Your task to perform on an android device: toggle javascript in the chrome app Image 0: 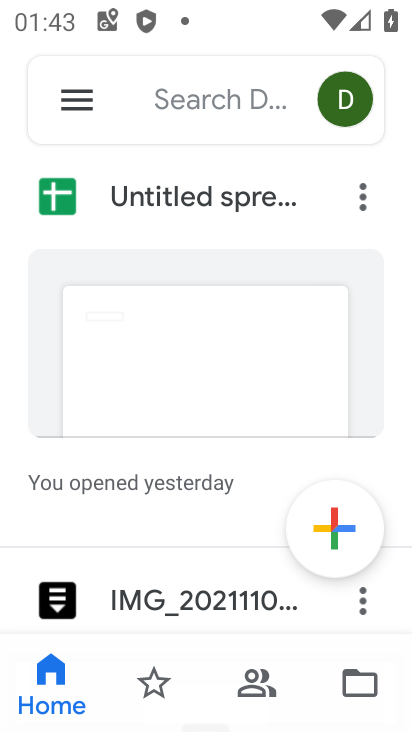
Step 0: press home button
Your task to perform on an android device: toggle javascript in the chrome app Image 1: 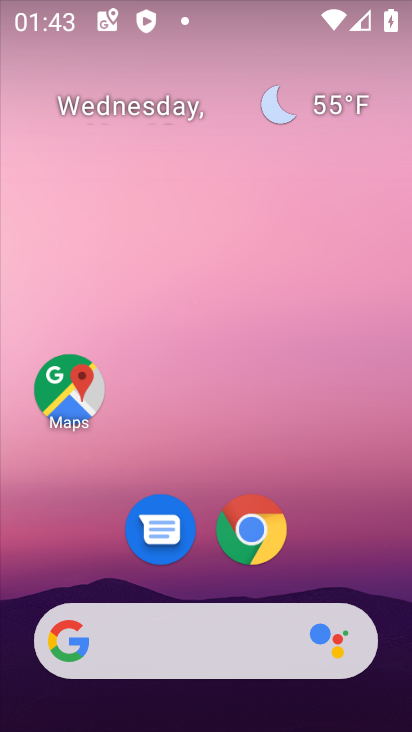
Step 1: click (251, 526)
Your task to perform on an android device: toggle javascript in the chrome app Image 2: 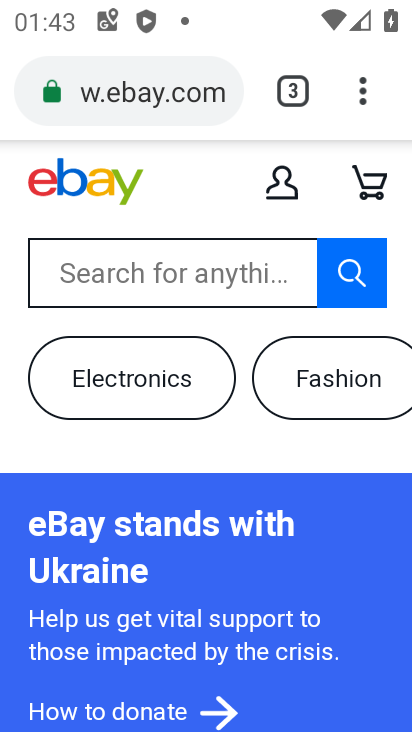
Step 2: click (366, 98)
Your task to perform on an android device: toggle javascript in the chrome app Image 3: 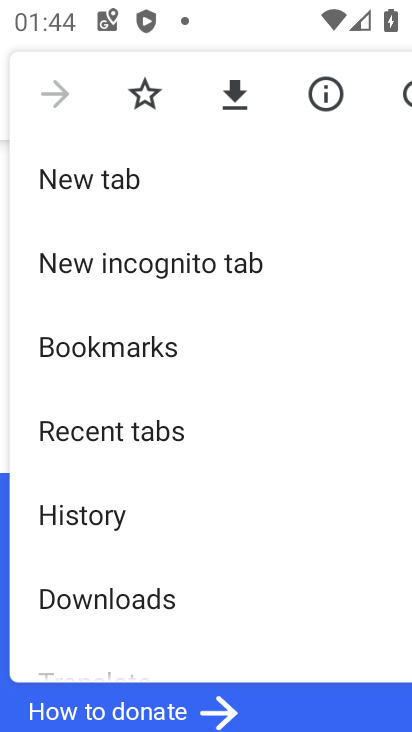
Step 3: drag from (121, 571) to (116, 231)
Your task to perform on an android device: toggle javascript in the chrome app Image 4: 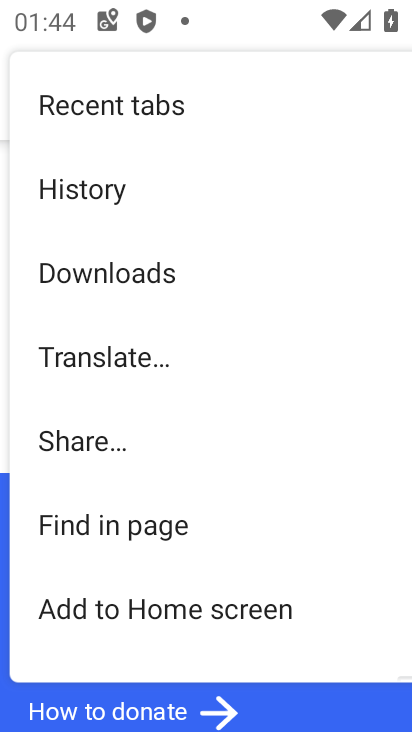
Step 4: drag from (91, 632) to (118, 291)
Your task to perform on an android device: toggle javascript in the chrome app Image 5: 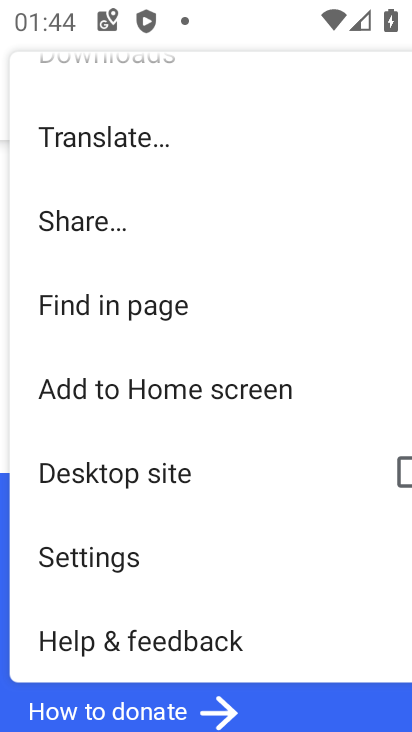
Step 5: click (109, 554)
Your task to perform on an android device: toggle javascript in the chrome app Image 6: 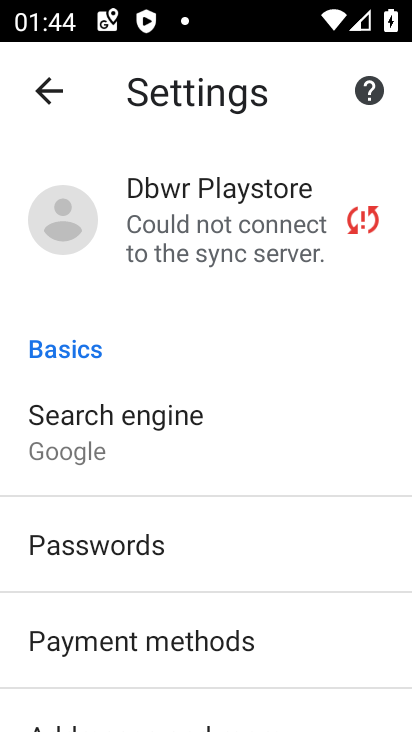
Step 6: drag from (142, 697) to (160, 318)
Your task to perform on an android device: toggle javascript in the chrome app Image 7: 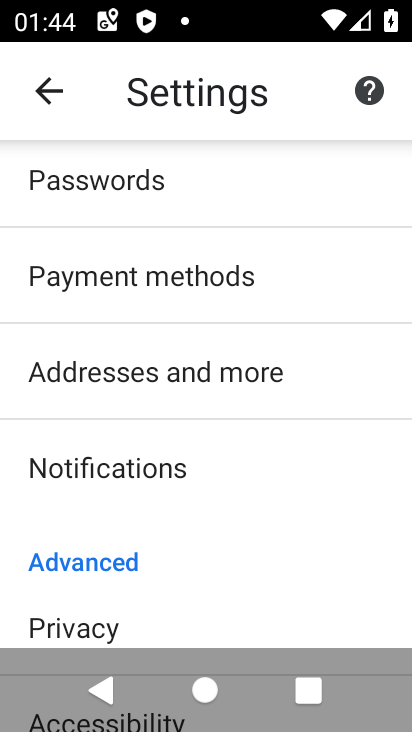
Step 7: drag from (151, 532) to (180, 255)
Your task to perform on an android device: toggle javascript in the chrome app Image 8: 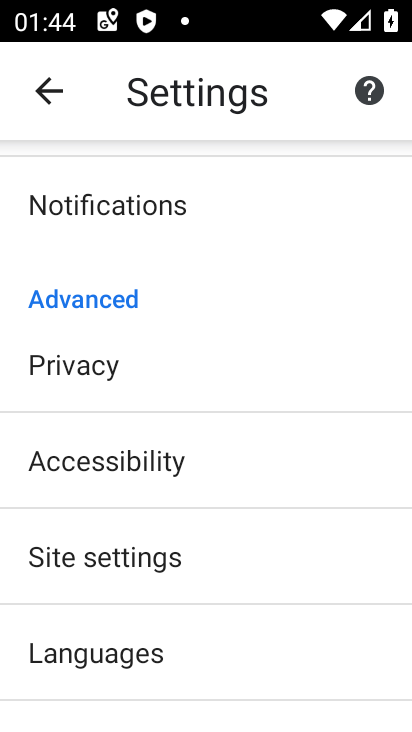
Step 8: click (140, 553)
Your task to perform on an android device: toggle javascript in the chrome app Image 9: 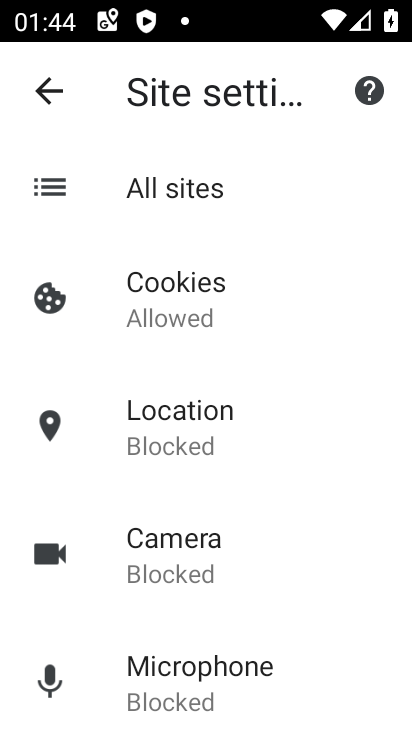
Step 9: drag from (184, 682) to (183, 294)
Your task to perform on an android device: toggle javascript in the chrome app Image 10: 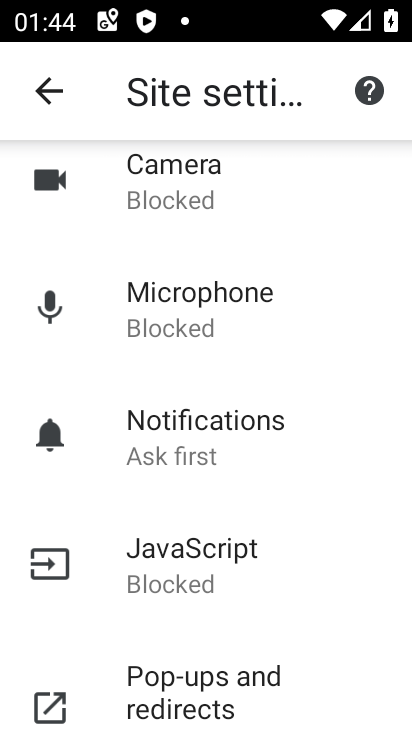
Step 10: click (183, 560)
Your task to perform on an android device: toggle javascript in the chrome app Image 11: 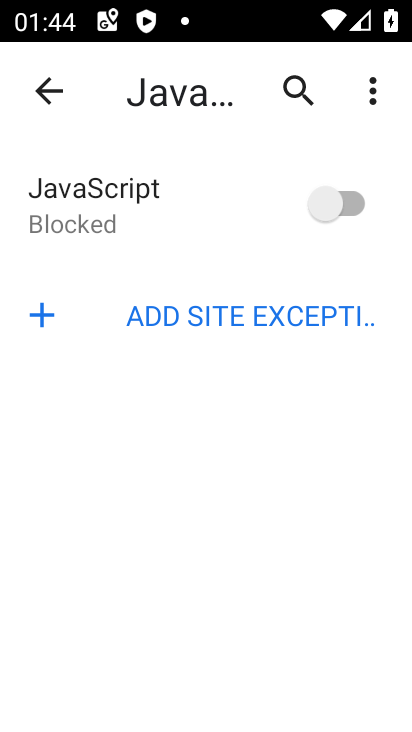
Step 11: click (352, 198)
Your task to perform on an android device: toggle javascript in the chrome app Image 12: 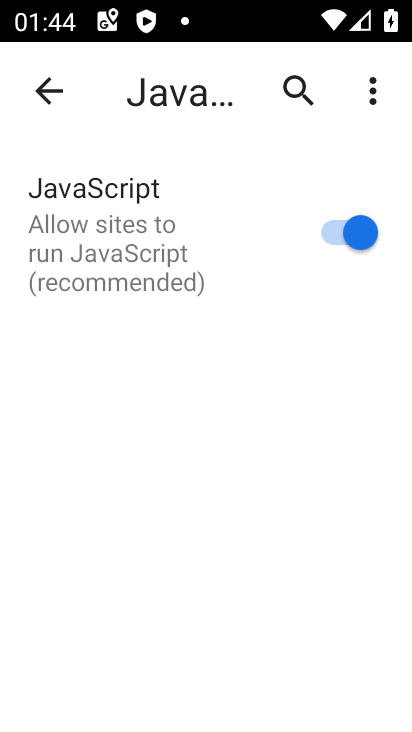
Step 12: task complete